Your task to perform on an android device: Open Youtube and go to the subscriptions tab Image 0: 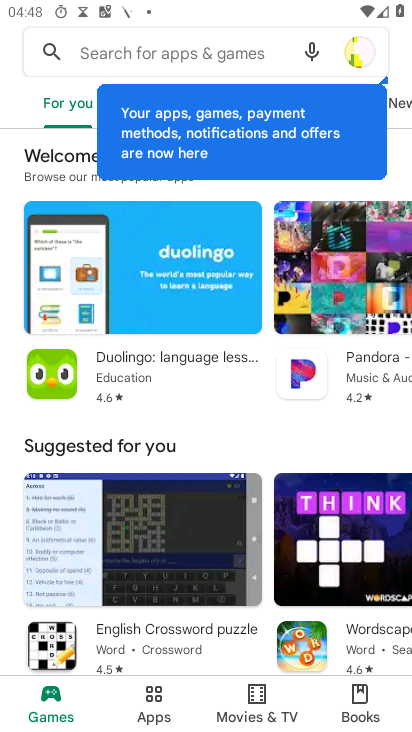
Step 0: press home button
Your task to perform on an android device: Open Youtube and go to the subscriptions tab Image 1: 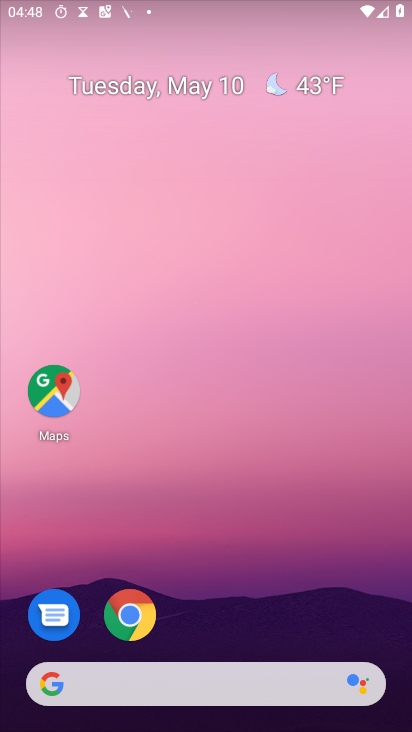
Step 1: drag from (372, 661) to (388, 124)
Your task to perform on an android device: Open Youtube and go to the subscriptions tab Image 2: 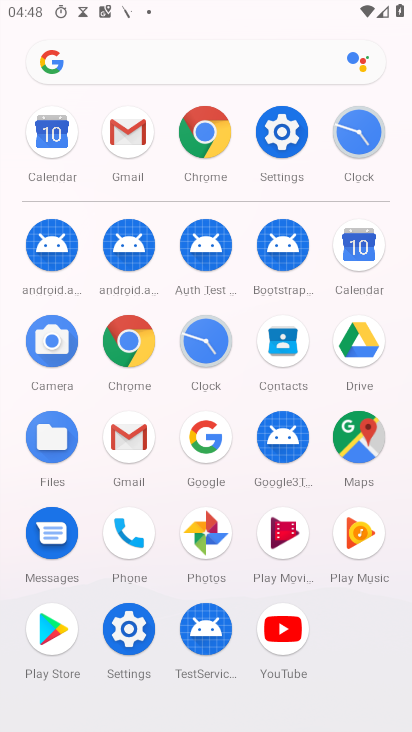
Step 2: click (291, 638)
Your task to perform on an android device: Open Youtube and go to the subscriptions tab Image 3: 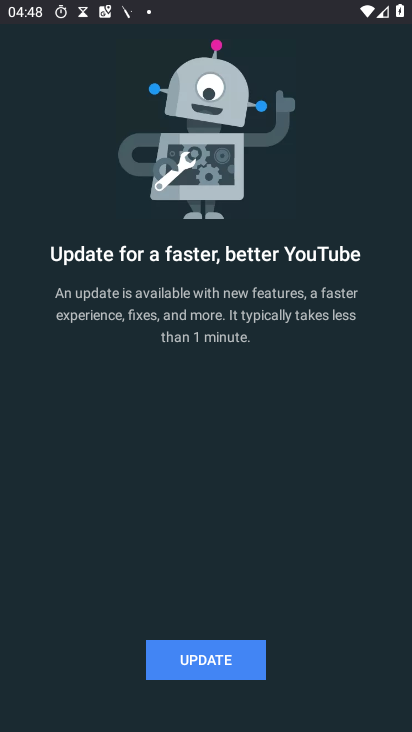
Step 3: click (231, 668)
Your task to perform on an android device: Open Youtube and go to the subscriptions tab Image 4: 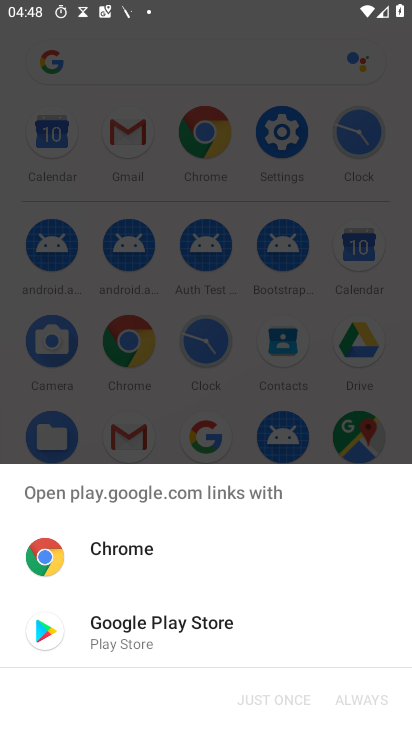
Step 4: click (193, 645)
Your task to perform on an android device: Open Youtube and go to the subscriptions tab Image 5: 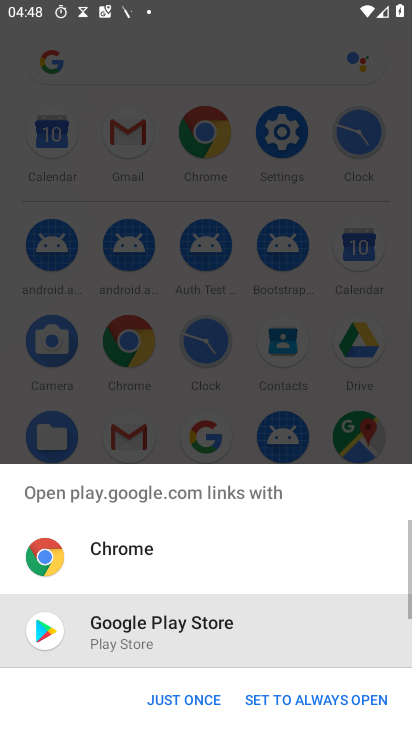
Step 5: click (201, 695)
Your task to perform on an android device: Open Youtube and go to the subscriptions tab Image 6: 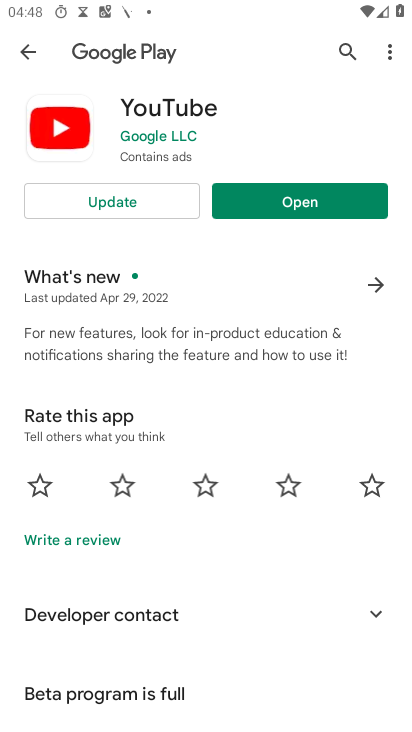
Step 6: click (162, 208)
Your task to perform on an android device: Open Youtube and go to the subscriptions tab Image 7: 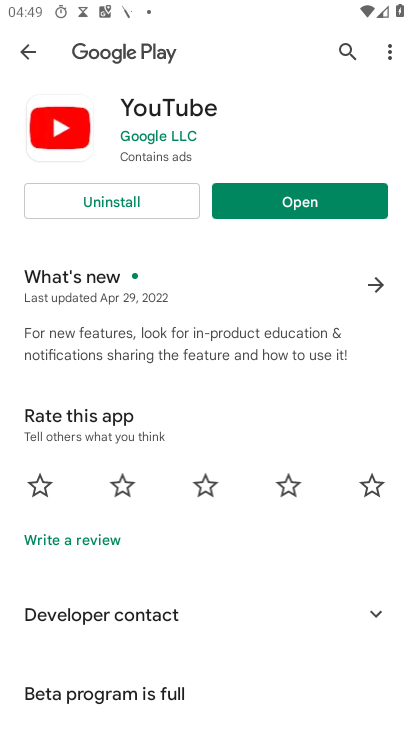
Step 7: click (318, 206)
Your task to perform on an android device: Open Youtube and go to the subscriptions tab Image 8: 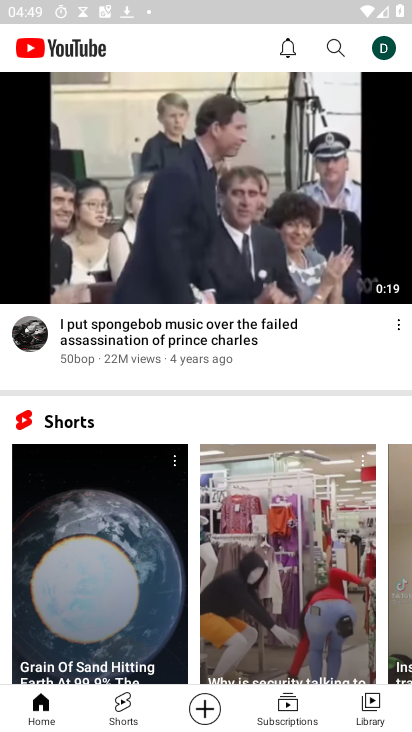
Step 8: click (291, 711)
Your task to perform on an android device: Open Youtube and go to the subscriptions tab Image 9: 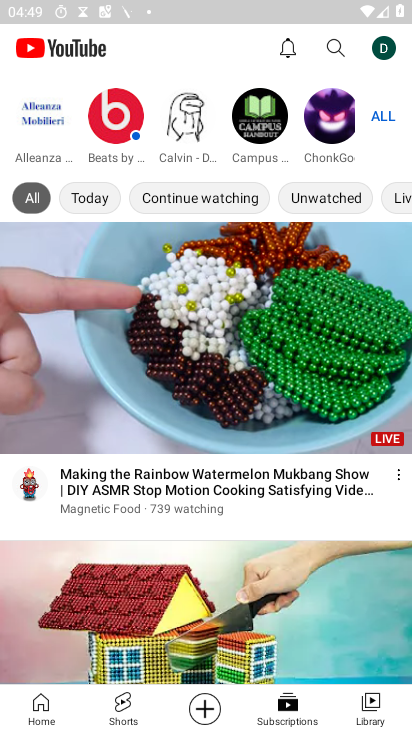
Step 9: click (290, 718)
Your task to perform on an android device: Open Youtube and go to the subscriptions tab Image 10: 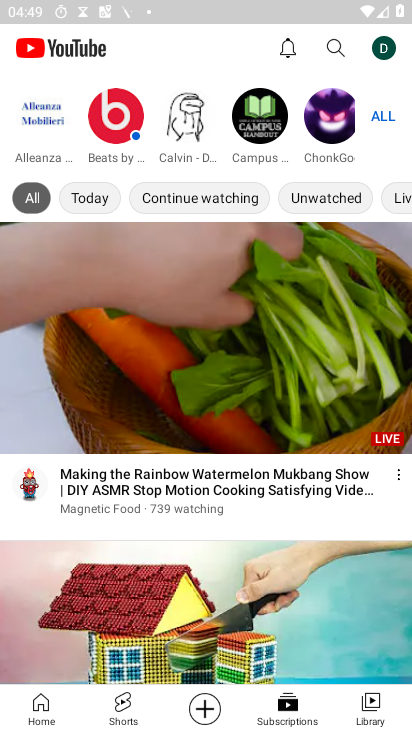
Step 10: task complete